Your task to perform on an android device: Open CNN.com Image 0: 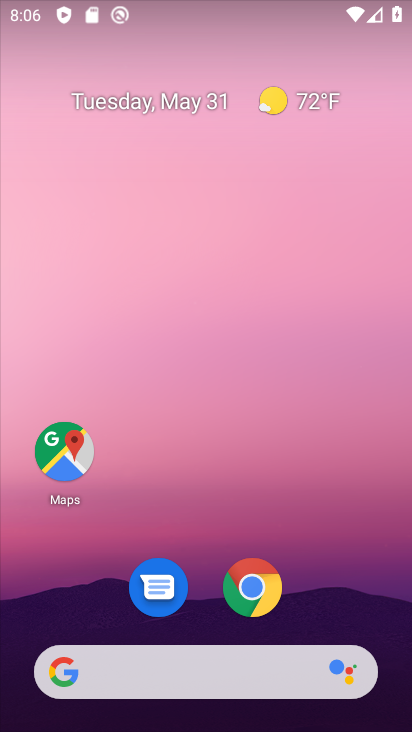
Step 0: click (131, 664)
Your task to perform on an android device: Open CNN.com Image 1: 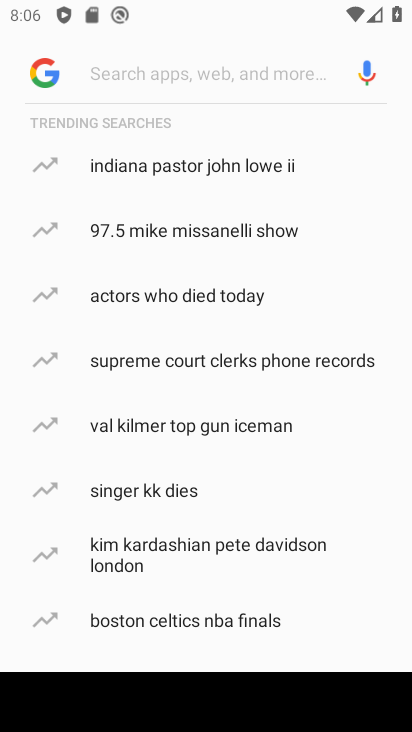
Step 1: type "cnn.com"
Your task to perform on an android device: Open CNN.com Image 2: 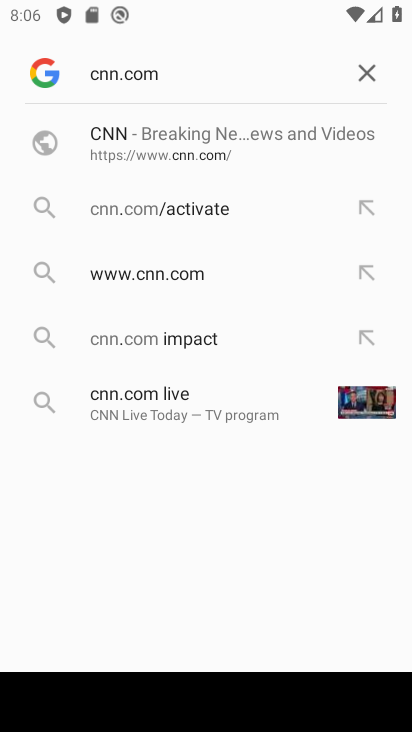
Step 2: type ""
Your task to perform on an android device: Open CNN.com Image 3: 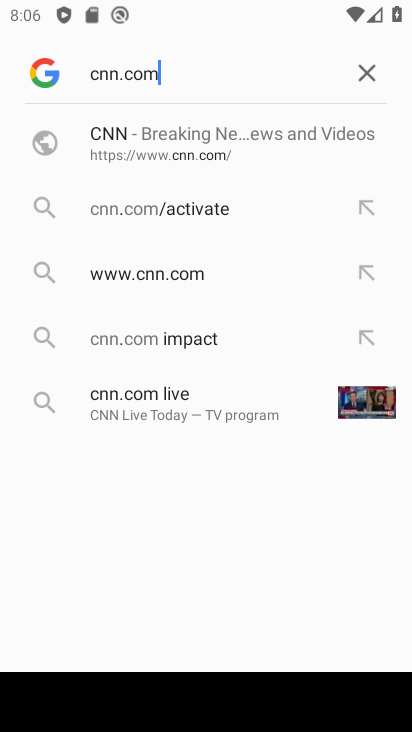
Step 3: click (173, 137)
Your task to perform on an android device: Open CNN.com Image 4: 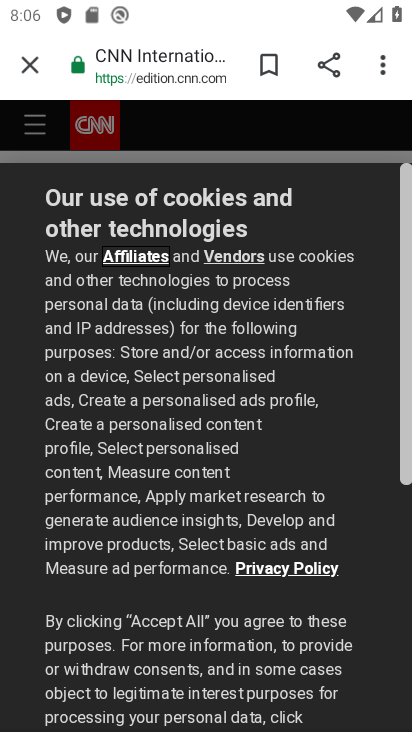
Step 4: task complete